Your task to perform on an android device: Toggle the flashlight Image 0: 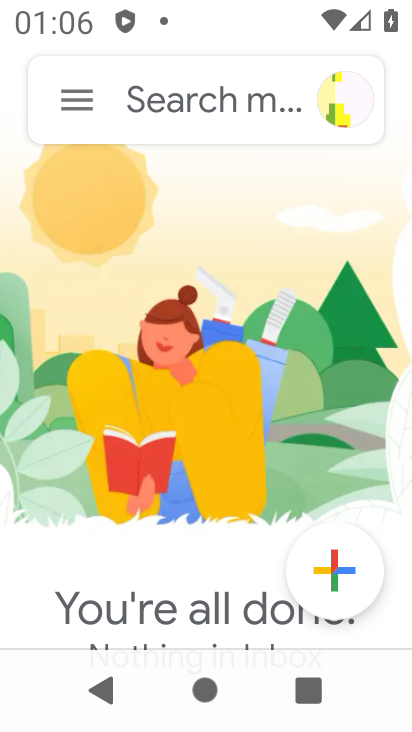
Step 0: drag from (179, 6) to (147, 441)
Your task to perform on an android device: Toggle the flashlight Image 1: 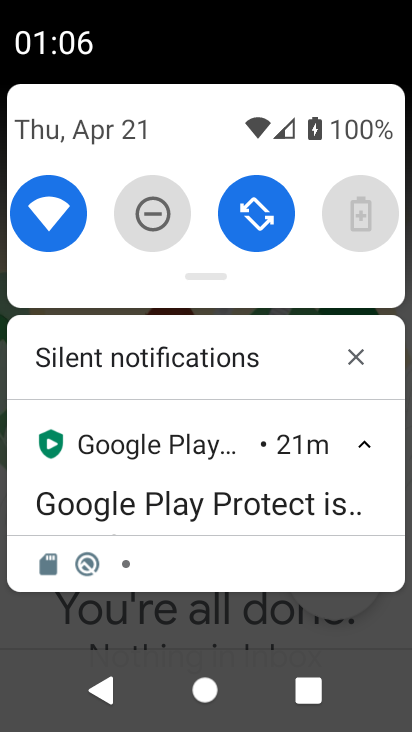
Step 1: drag from (217, 133) to (125, 579)
Your task to perform on an android device: Toggle the flashlight Image 2: 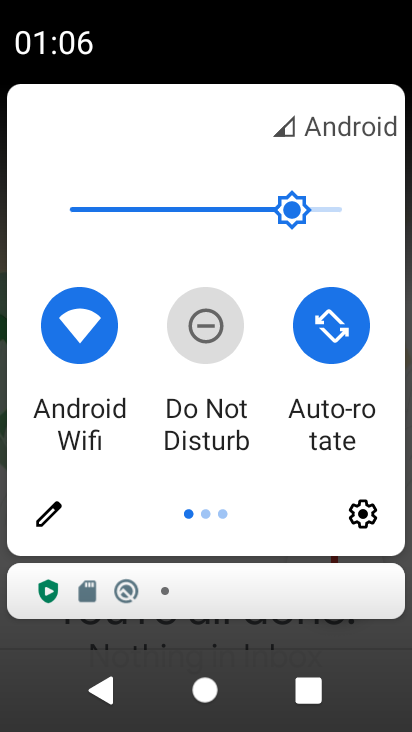
Step 2: click (369, 536)
Your task to perform on an android device: Toggle the flashlight Image 3: 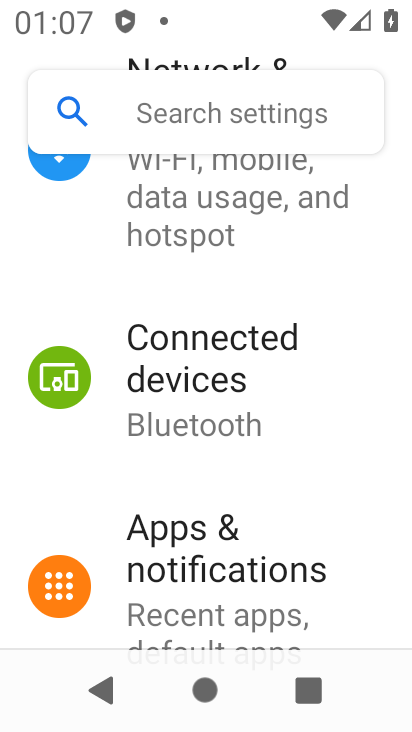
Step 3: task complete